Your task to perform on an android device: Open Reddit.com Image 0: 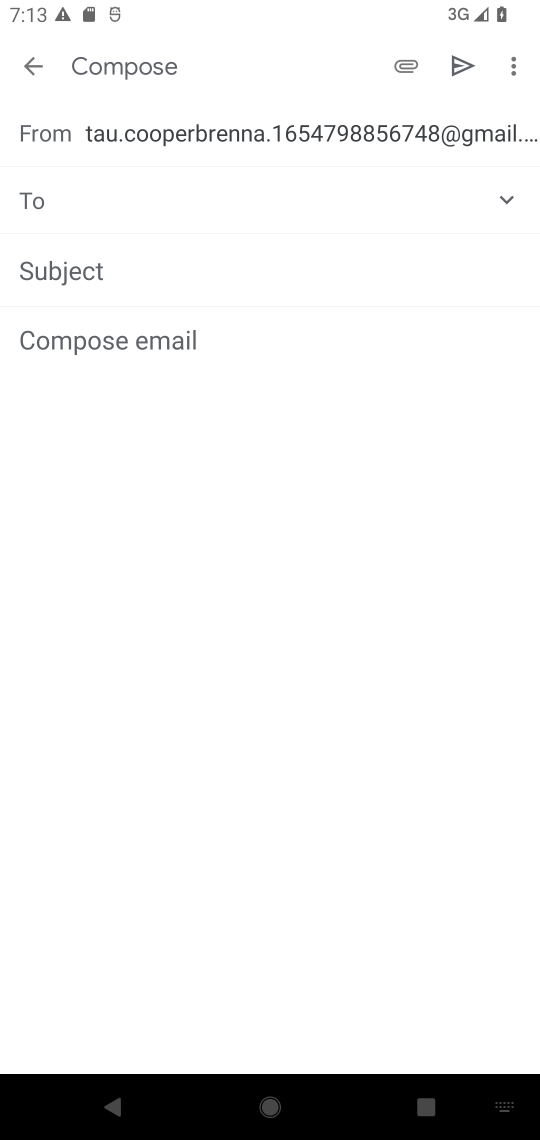
Step 0: press home button
Your task to perform on an android device: Open Reddit.com Image 1: 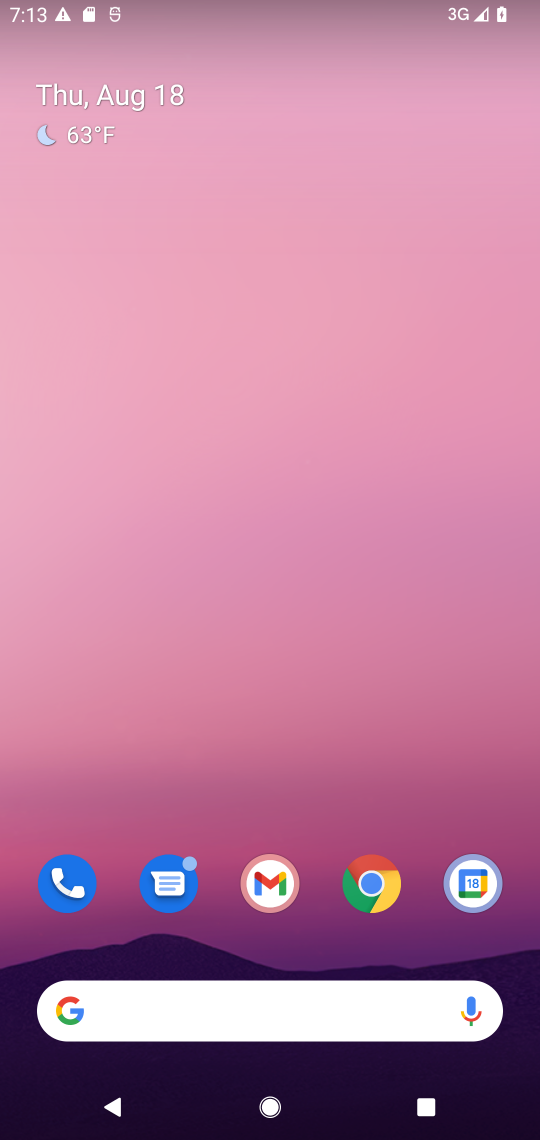
Step 1: click (156, 1013)
Your task to perform on an android device: Open Reddit.com Image 2: 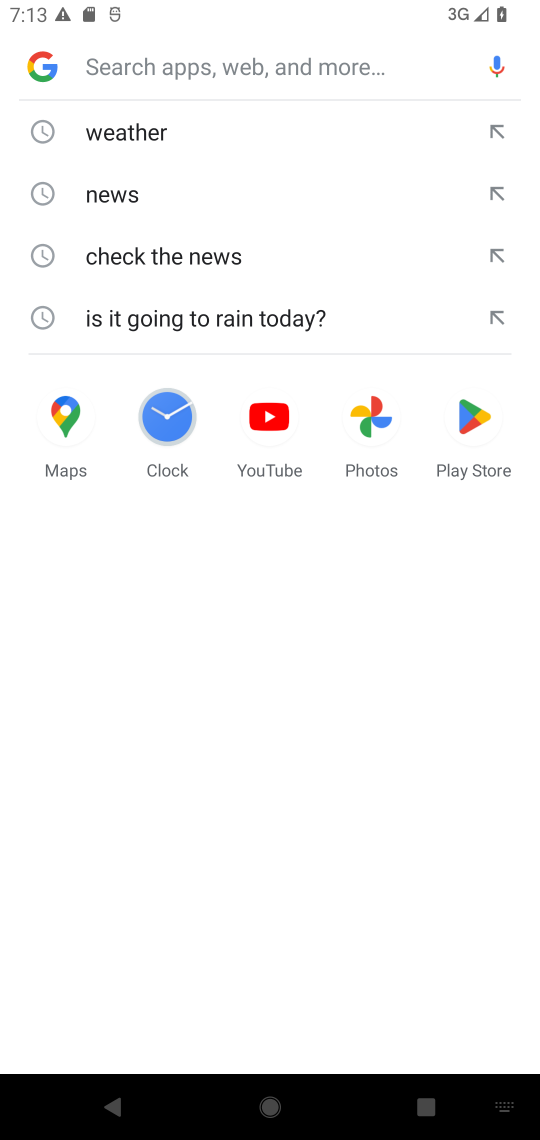
Step 2: type "Reddit.com"
Your task to perform on an android device: Open Reddit.com Image 3: 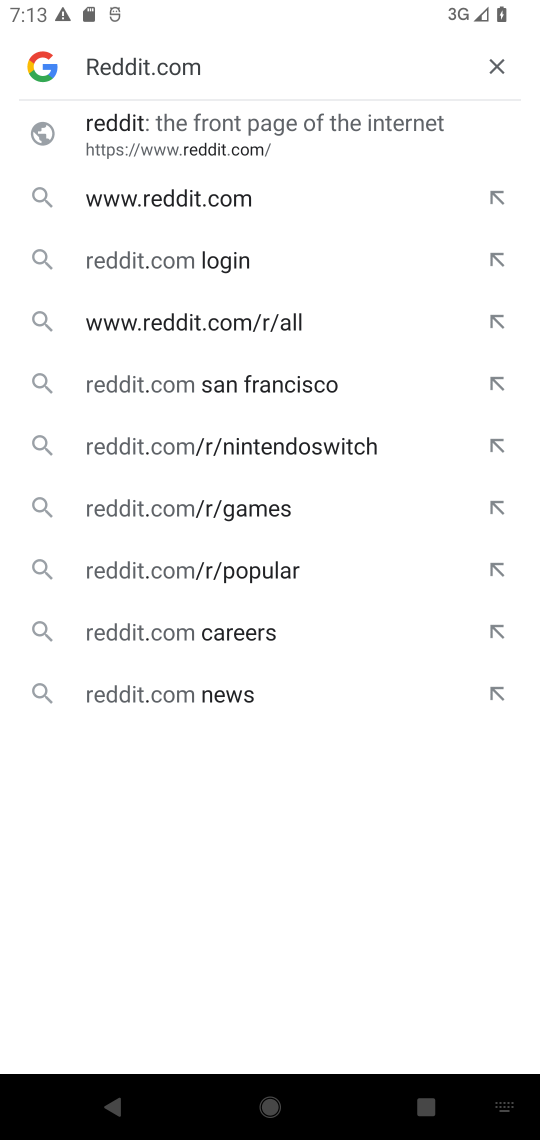
Step 3: type ""
Your task to perform on an android device: Open Reddit.com Image 4: 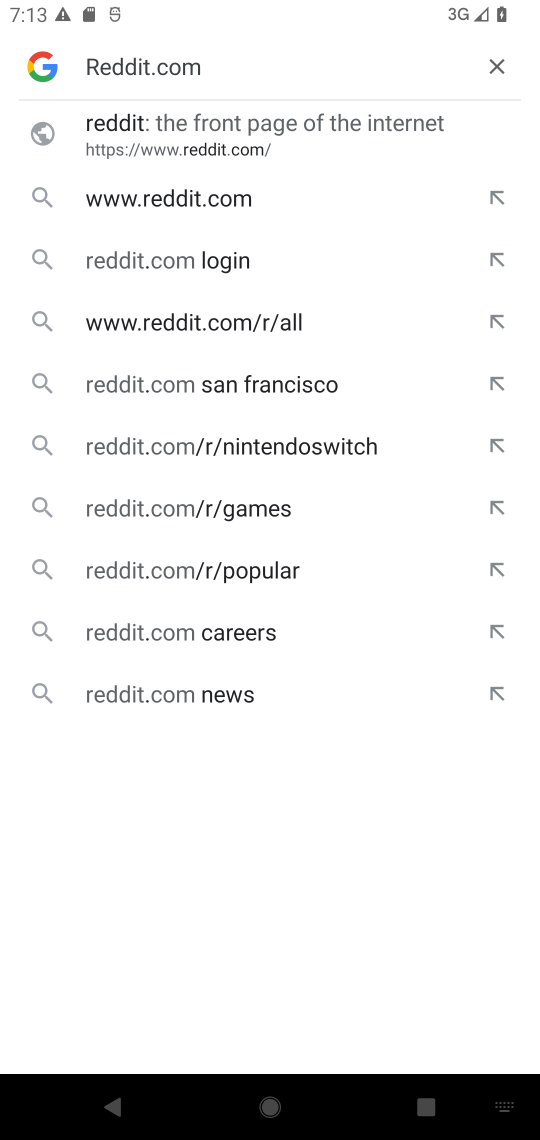
Step 4: type ""
Your task to perform on an android device: Open Reddit.com Image 5: 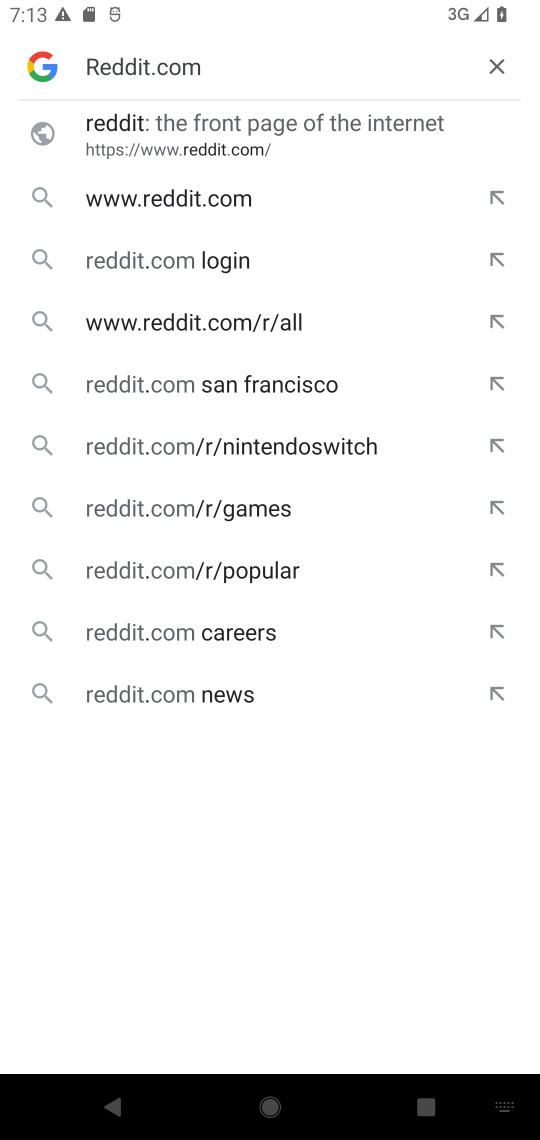
Step 5: task complete